Your task to perform on an android device: turn notification dots off Image 0: 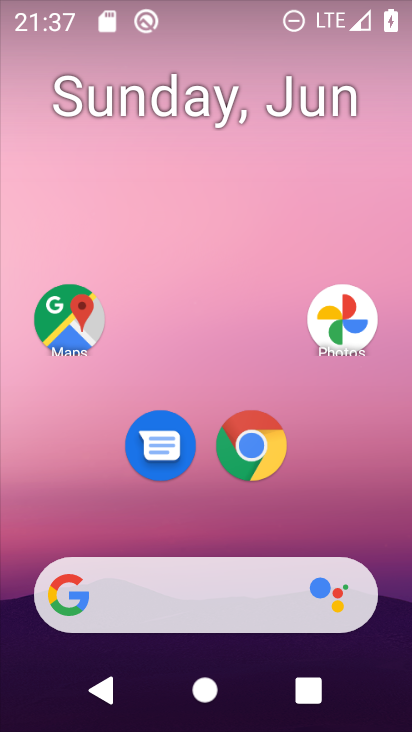
Step 0: press home button
Your task to perform on an android device: turn notification dots off Image 1: 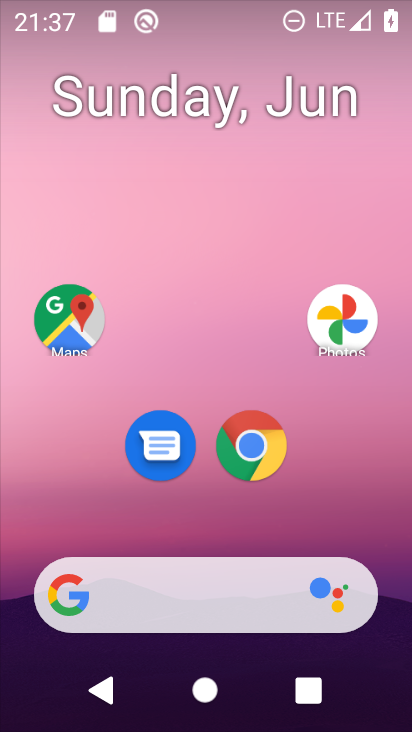
Step 1: drag from (212, 508) to (225, 115)
Your task to perform on an android device: turn notification dots off Image 2: 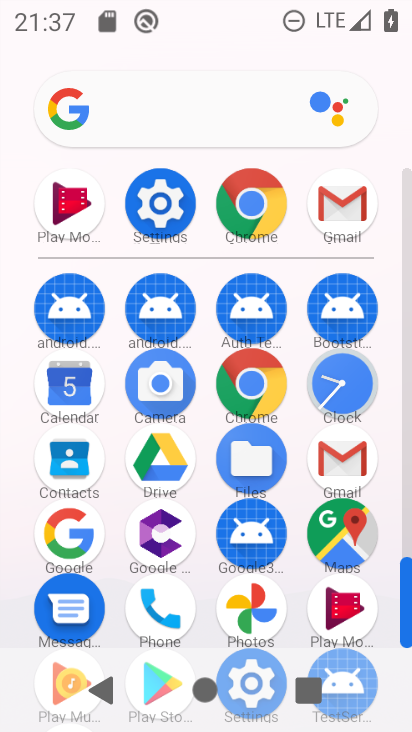
Step 2: click (168, 200)
Your task to perform on an android device: turn notification dots off Image 3: 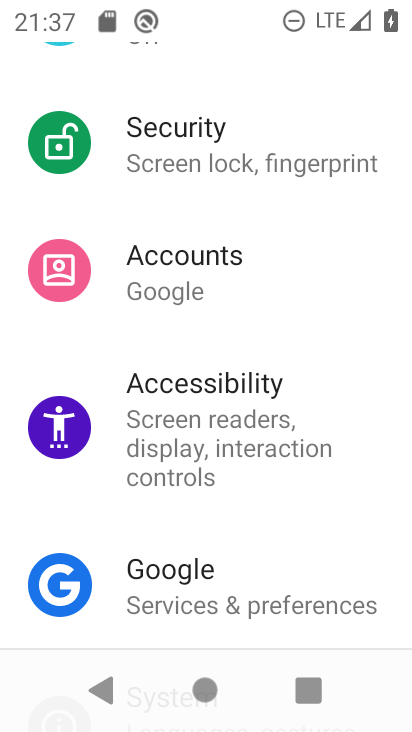
Step 3: drag from (283, 124) to (240, 649)
Your task to perform on an android device: turn notification dots off Image 4: 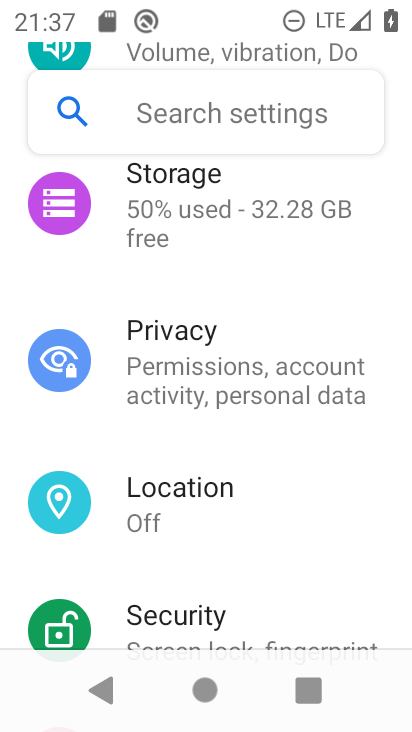
Step 4: drag from (246, 194) to (258, 659)
Your task to perform on an android device: turn notification dots off Image 5: 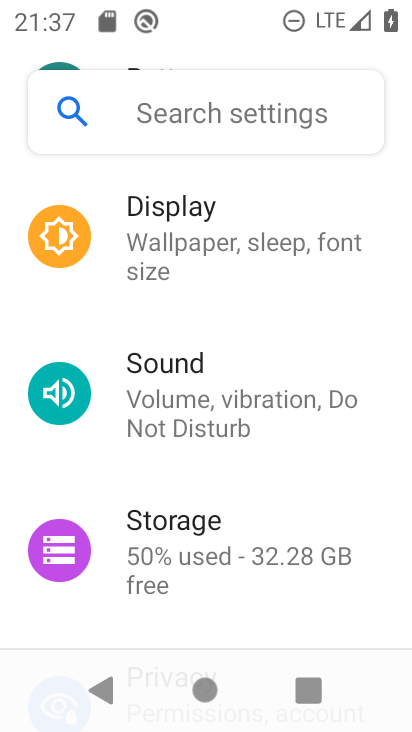
Step 5: drag from (273, 210) to (308, 662)
Your task to perform on an android device: turn notification dots off Image 6: 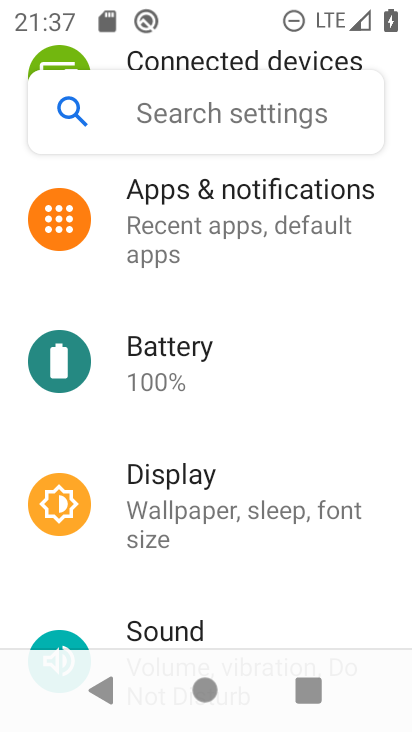
Step 6: click (216, 227)
Your task to perform on an android device: turn notification dots off Image 7: 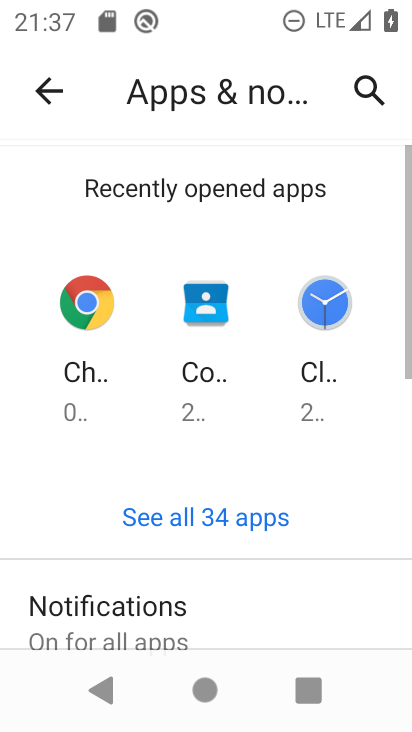
Step 7: click (104, 611)
Your task to perform on an android device: turn notification dots off Image 8: 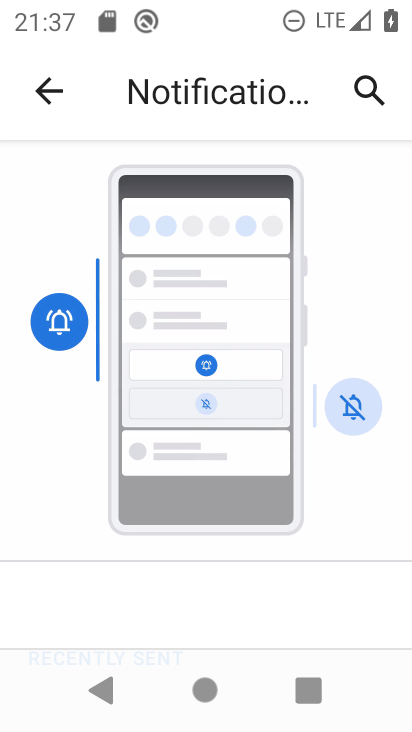
Step 8: drag from (347, 489) to (348, 13)
Your task to perform on an android device: turn notification dots off Image 9: 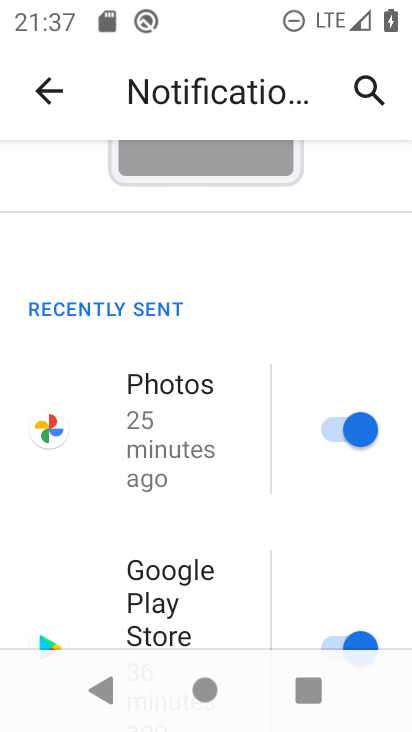
Step 9: drag from (330, 521) to (344, 58)
Your task to perform on an android device: turn notification dots off Image 10: 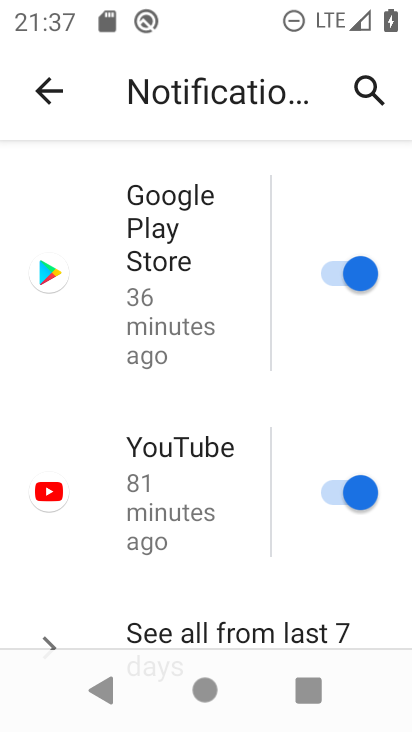
Step 10: drag from (244, 560) to (266, 11)
Your task to perform on an android device: turn notification dots off Image 11: 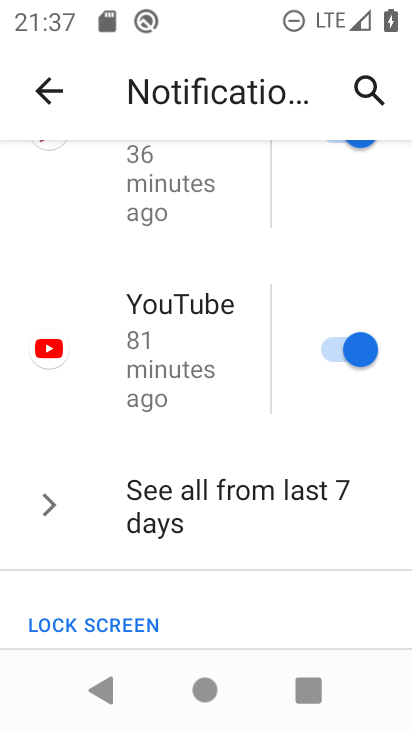
Step 11: drag from (238, 603) to (284, 93)
Your task to perform on an android device: turn notification dots off Image 12: 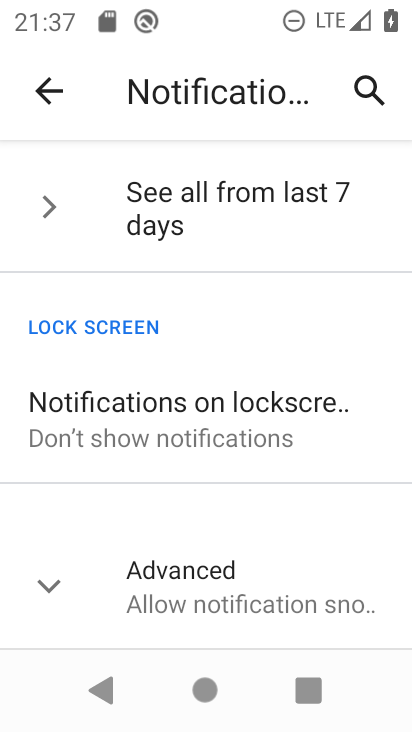
Step 12: click (180, 588)
Your task to perform on an android device: turn notification dots off Image 13: 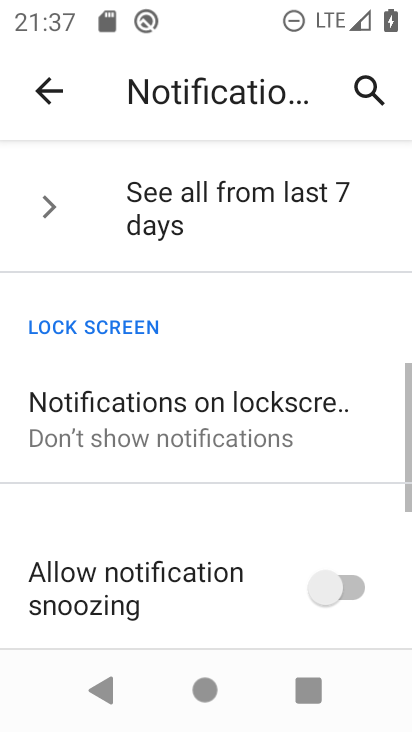
Step 13: drag from (316, 607) to (406, 94)
Your task to perform on an android device: turn notification dots off Image 14: 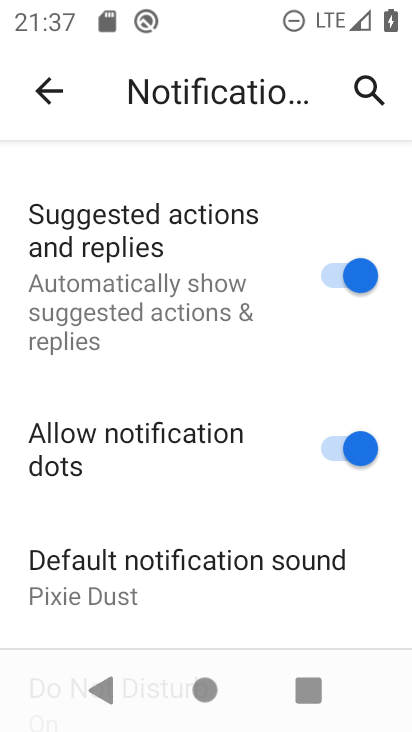
Step 14: click (356, 454)
Your task to perform on an android device: turn notification dots off Image 15: 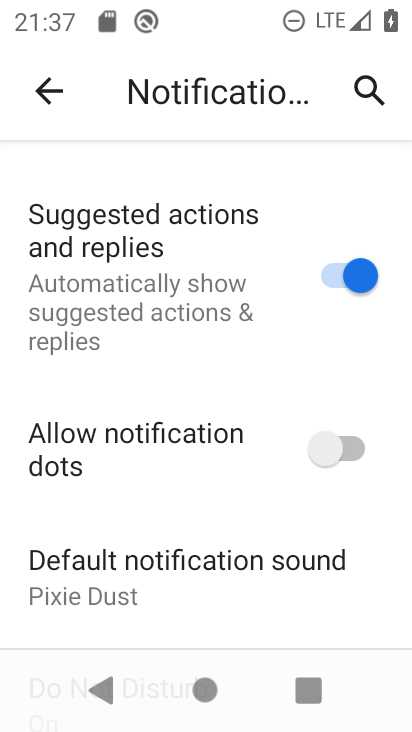
Step 15: task complete